Your task to perform on an android device: Open the web browser Image 0: 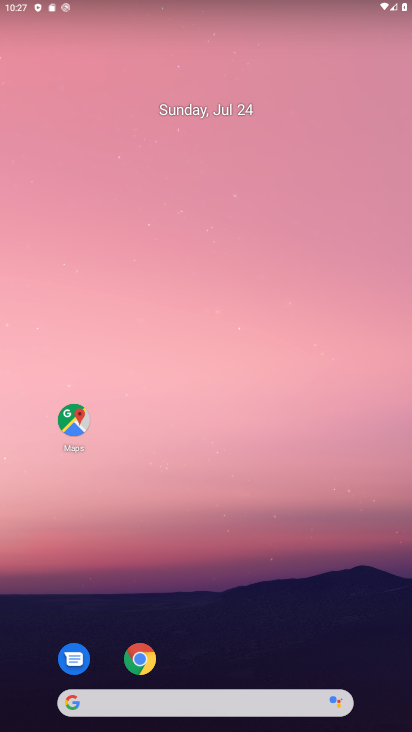
Step 0: drag from (326, 588) to (370, 67)
Your task to perform on an android device: Open the web browser Image 1: 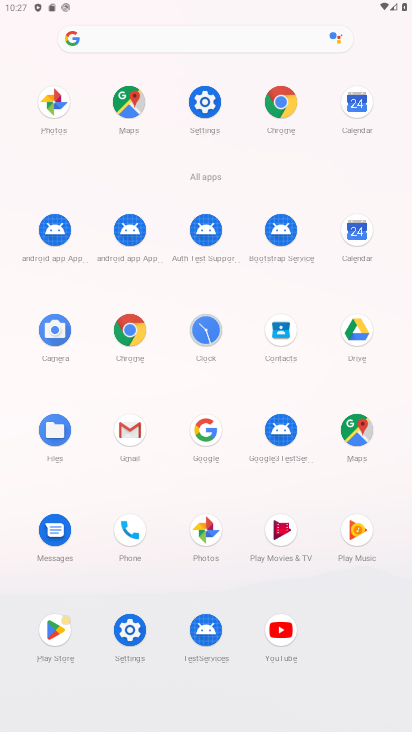
Step 1: click (281, 112)
Your task to perform on an android device: Open the web browser Image 2: 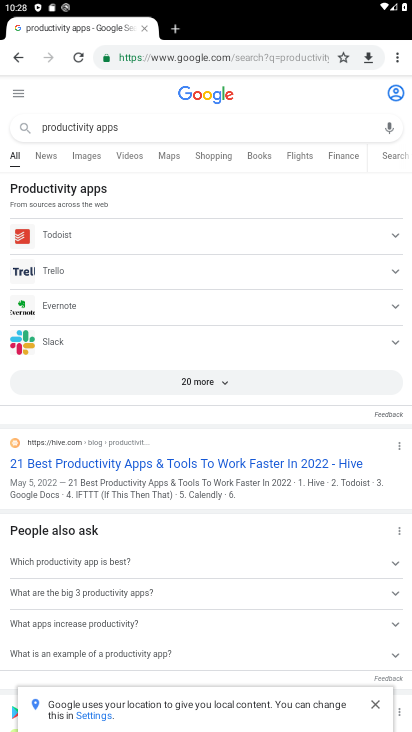
Step 2: task complete